Your task to perform on an android device: Is it going to rain tomorrow? Image 0: 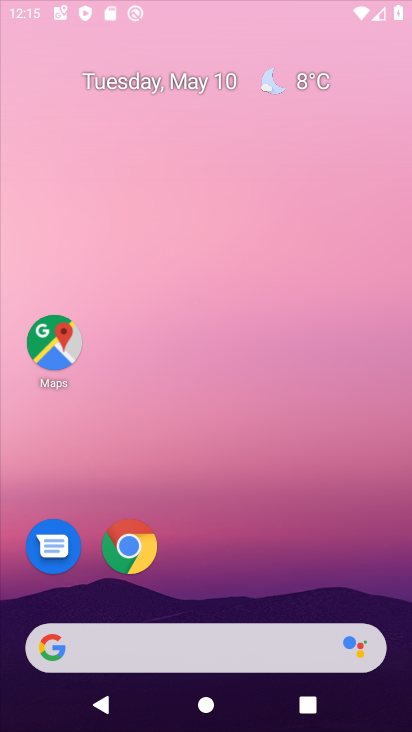
Step 0: click (56, 353)
Your task to perform on an android device: Is it going to rain tomorrow? Image 1: 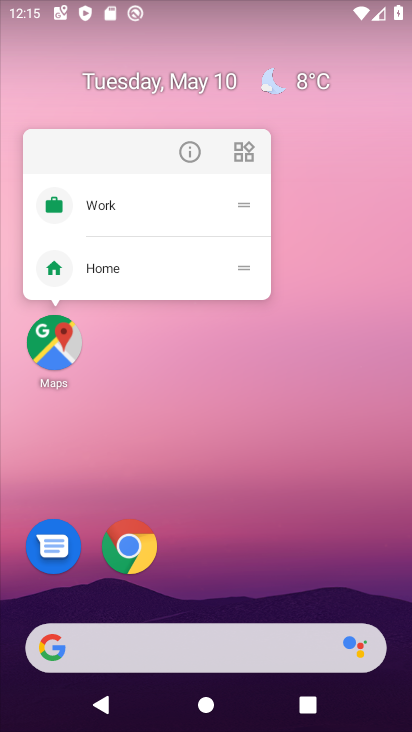
Step 1: click (48, 351)
Your task to perform on an android device: Is it going to rain tomorrow? Image 2: 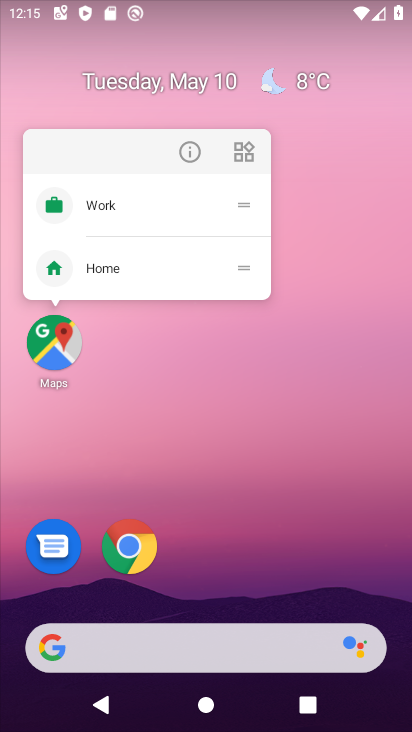
Step 2: click (241, 410)
Your task to perform on an android device: Is it going to rain tomorrow? Image 3: 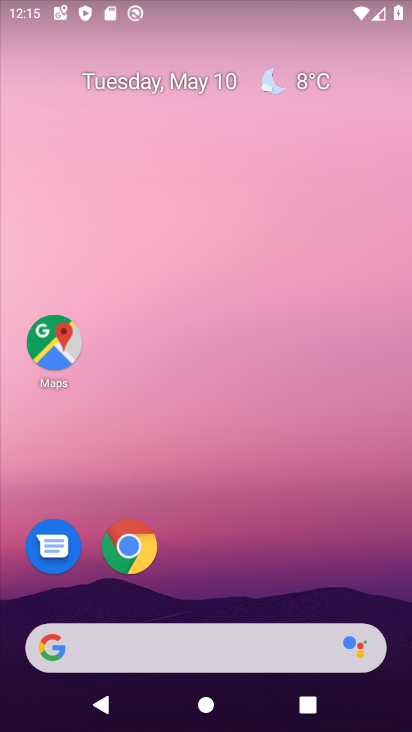
Step 3: click (105, 299)
Your task to perform on an android device: Is it going to rain tomorrow? Image 4: 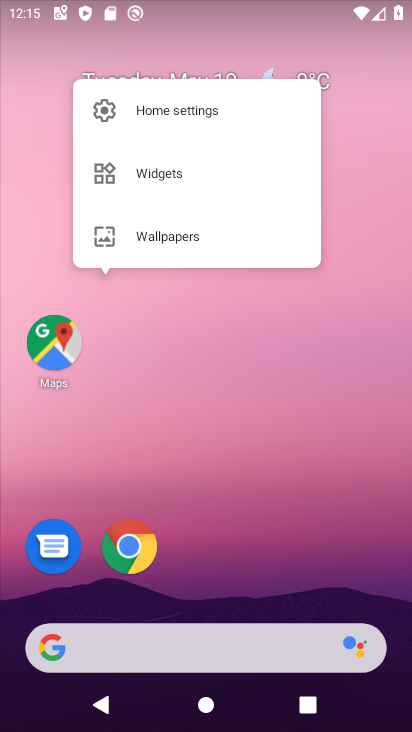
Step 4: drag from (11, 182) to (284, 336)
Your task to perform on an android device: Is it going to rain tomorrow? Image 5: 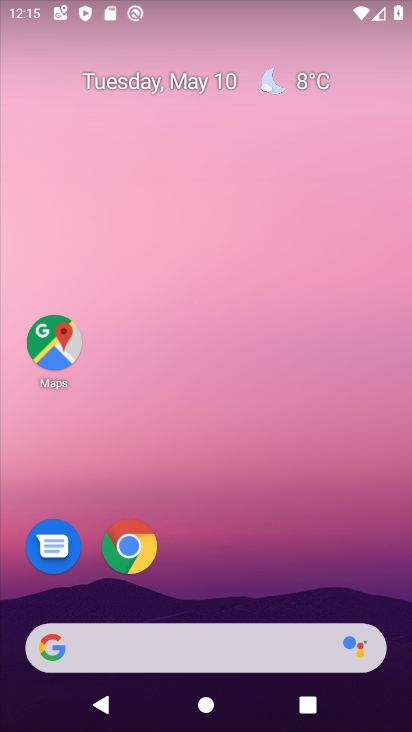
Step 5: drag from (2, 209) to (318, 384)
Your task to perform on an android device: Is it going to rain tomorrow? Image 6: 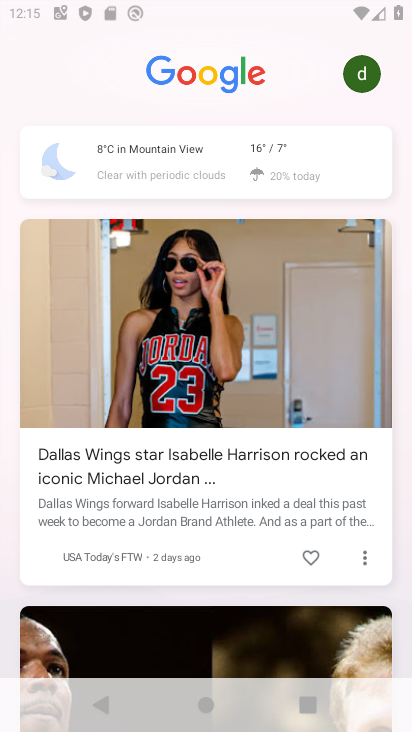
Step 6: click (404, 365)
Your task to perform on an android device: Is it going to rain tomorrow? Image 7: 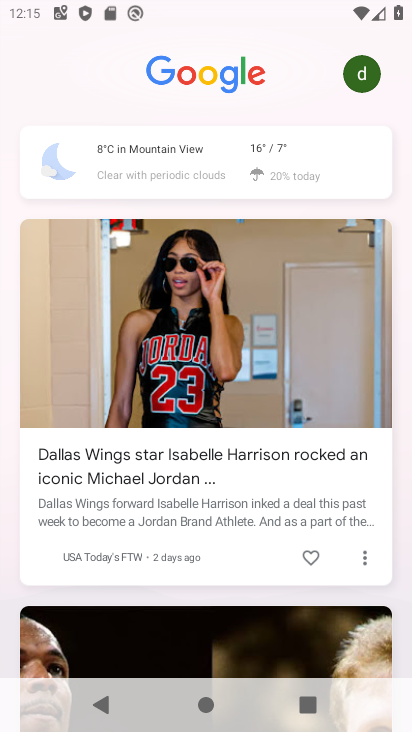
Step 7: drag from (213, 197) to (286, 472)
Your task to perform on an android device: Is it going to rain tomorrow? Image 8: 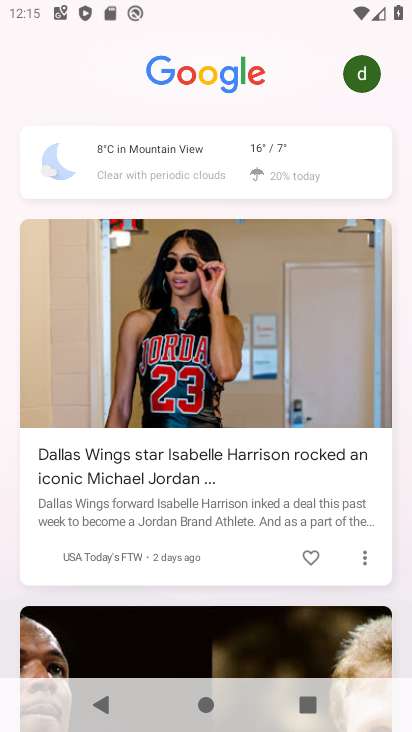
Step 8: drag from (171, 150) to (253, 453)
Your task to perform on an android device: Is it going to rain tomorrow? Image 9: 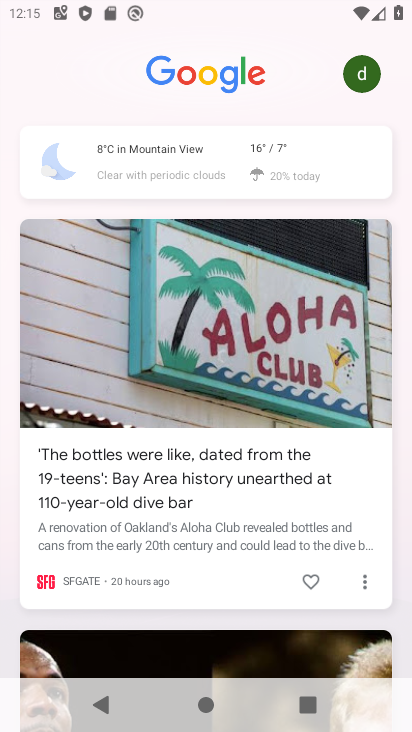
Step 9: click (211, 163)
Your task to perform on an android device: Is it going to rain tomorrow? Image 10: 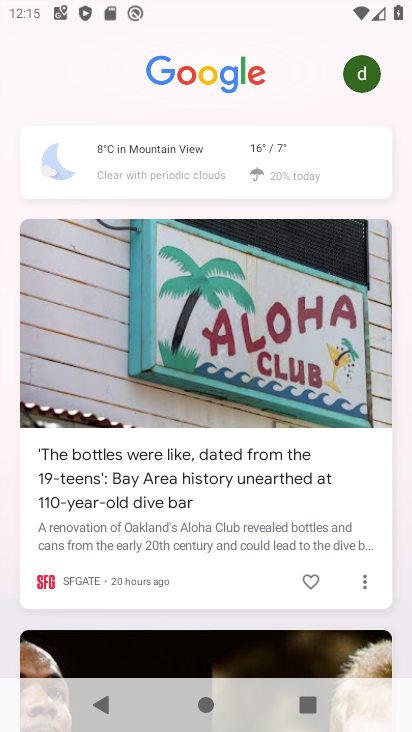
Step 10: click (210, 164)
Your task to perform on an android device: Is it going to rain tomorrow? Image 11: 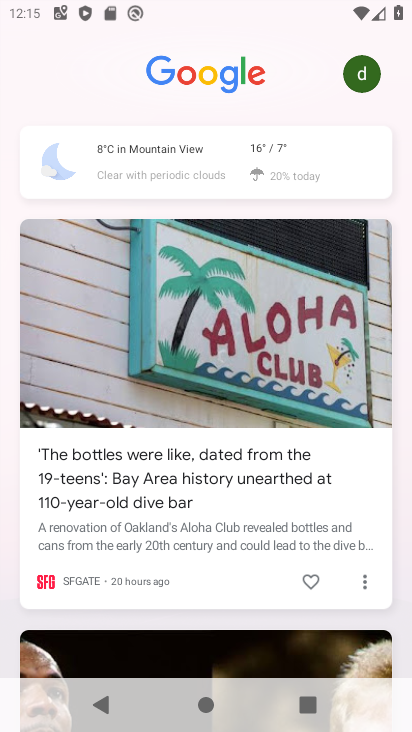
Step 11: click (210, 164)
Your task to perform on an android device: Is it going to rain tomorrow? Image 12: 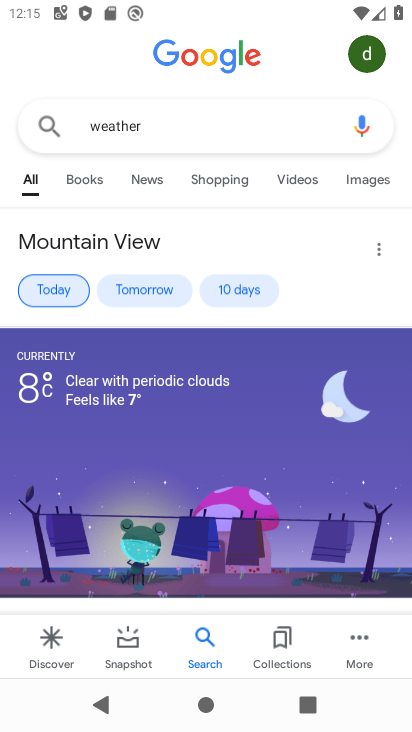
Step 12: click (147, 289)
Your task to perform on an android device: Is it going to rain tomorrow? Image 13: 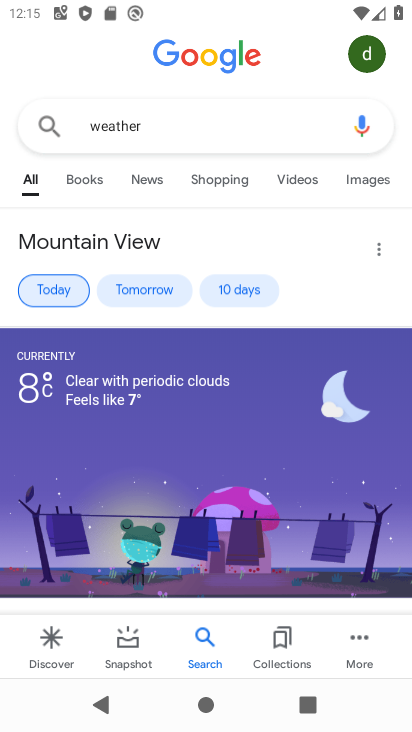
Step 13: click (147, 289)
Your task to perform on an android device: Is it going to rain tomorrow? Image 14: 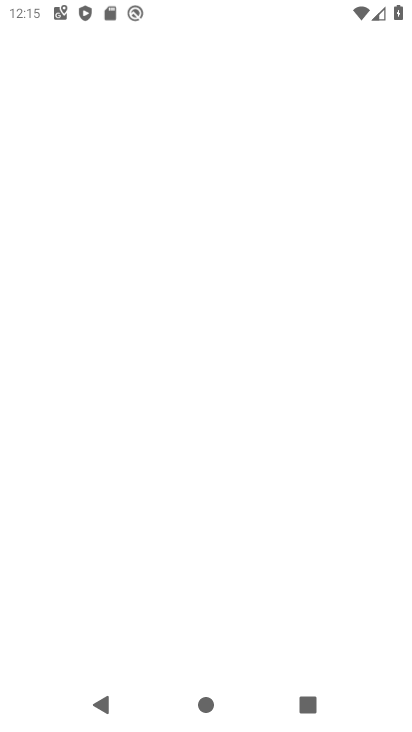
Step 14: click (147, 288)
Your task to perform on an android device: Is it going to rain tomorrow? Image 15: 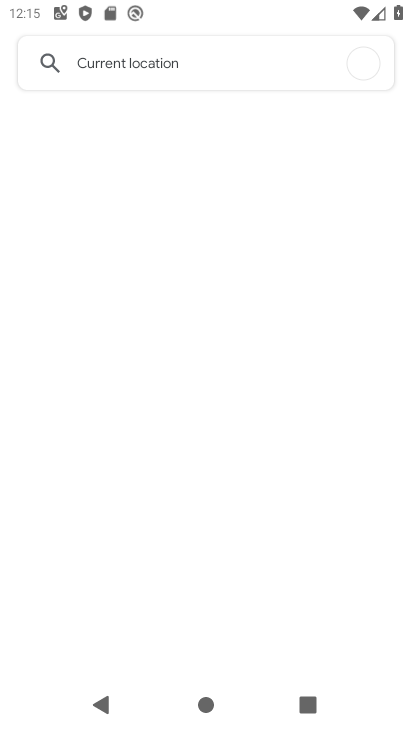
Step 15: click (148, 287)
Your task to perform on an android device: Is it going to rain tomorrow? Image 16: 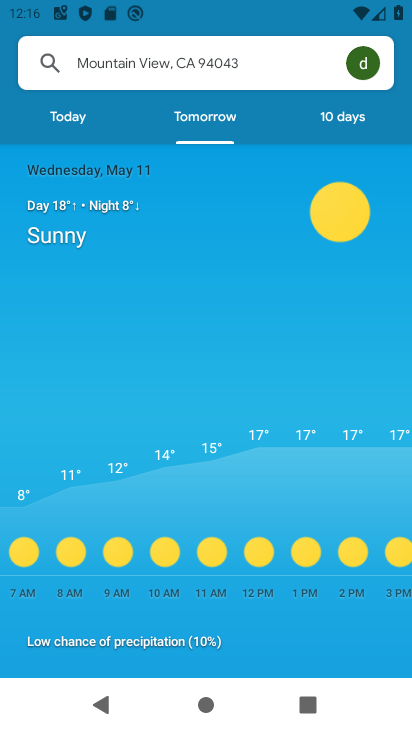
Step 16: task complete